Your task to perform on an android device: Open calendar and show me the second week of next month Image 0: 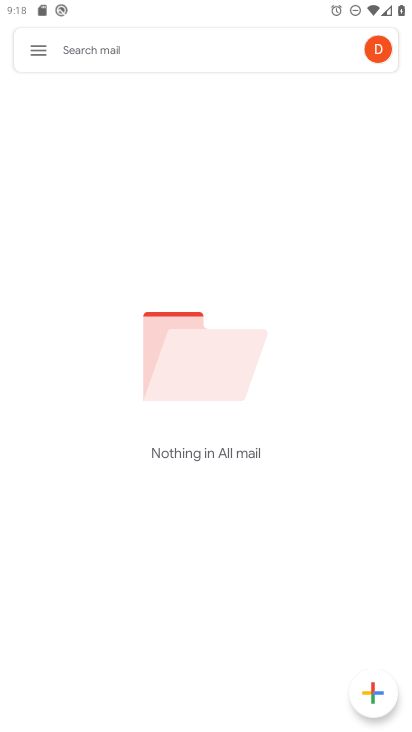
Step 0: click (185, 684)
Your task to perform on an android device: Open calendar and show me the second week of next month Image 1: 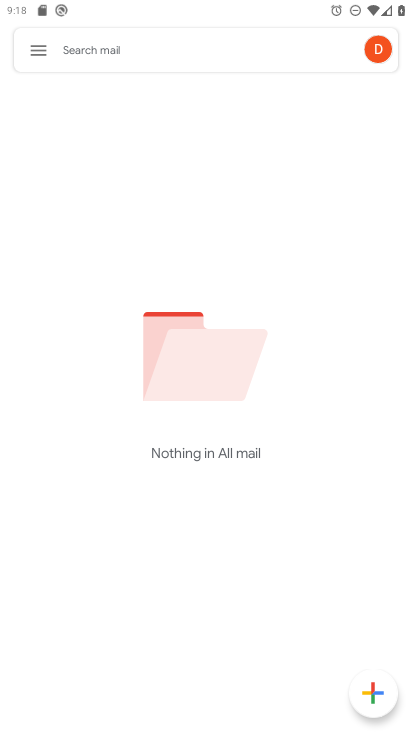
Step 1: press home button
Your task to perform on an android device: Open calendar and show me the second week of next month Image 2: 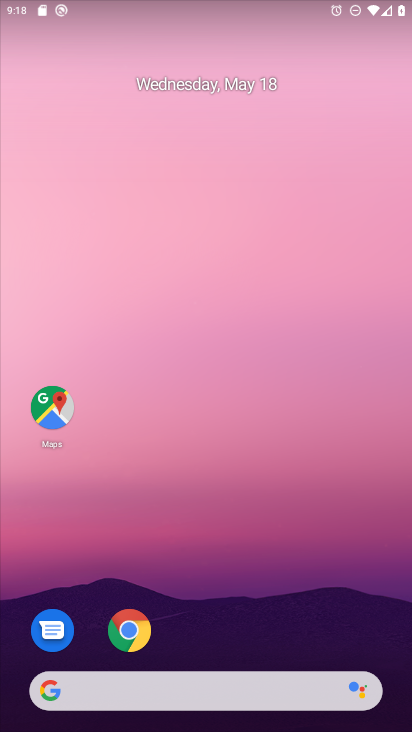
Step 2: drag from (190, 654) to (155, 84)
Your task to perform on an android device: Open calendar and show me the second week of next month Image 3: 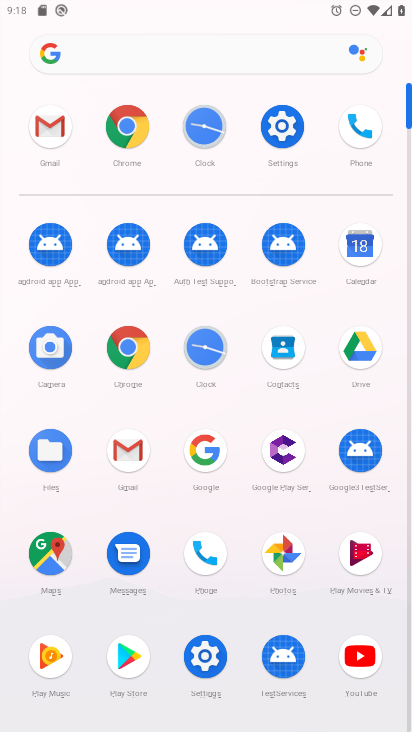
Step 3: click (351, 265)
Your task to perform on an android device: Open calendar and show me the second week of next month Image 4: 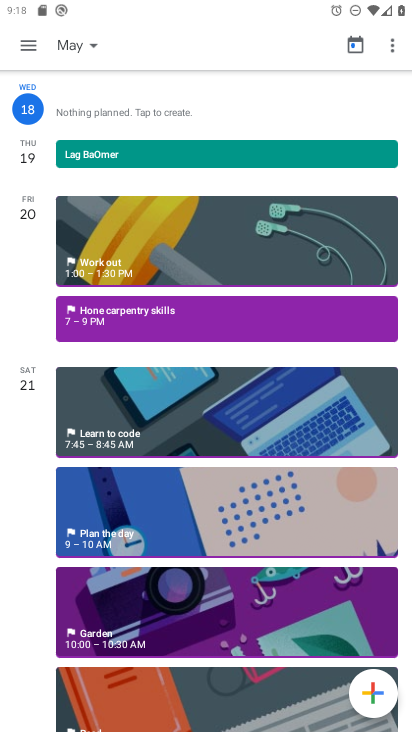
Step 4: click (36, 53)
Your task to perform on an android device: Open calendar and show me the second week of next month Image 5: 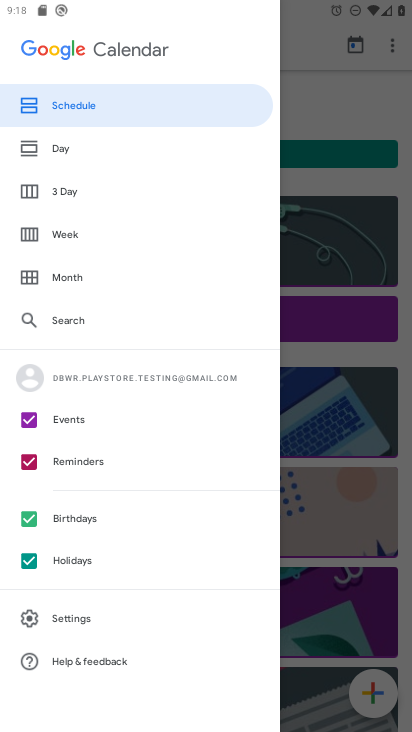
Step 5: click (67, 238)
Your task to perform on an android device: Open calendar and show me the second week of next month Image 6: 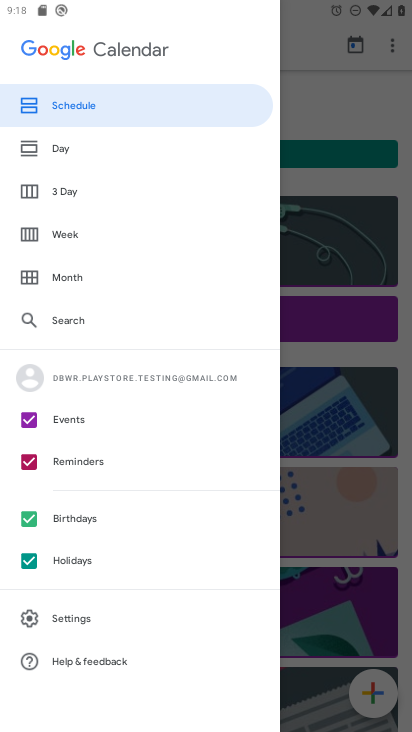
Step 6: click (67, 238)
Your task to perform on an android device: Open calendar and show me the second week of next month Image 7: 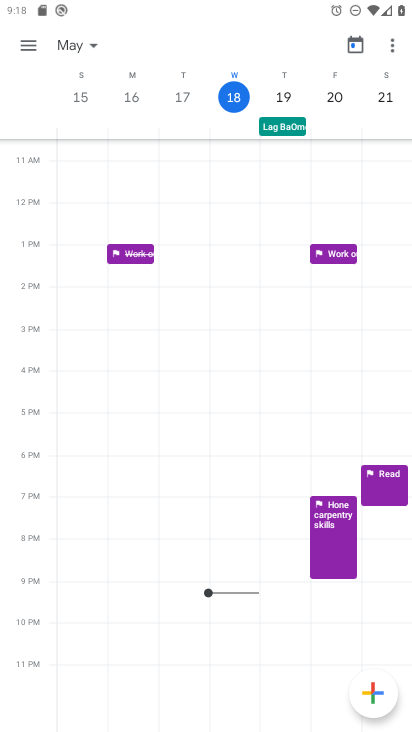
Step 7: task complete